Your task to perform on an android device: change the clock display to digital Image 0: 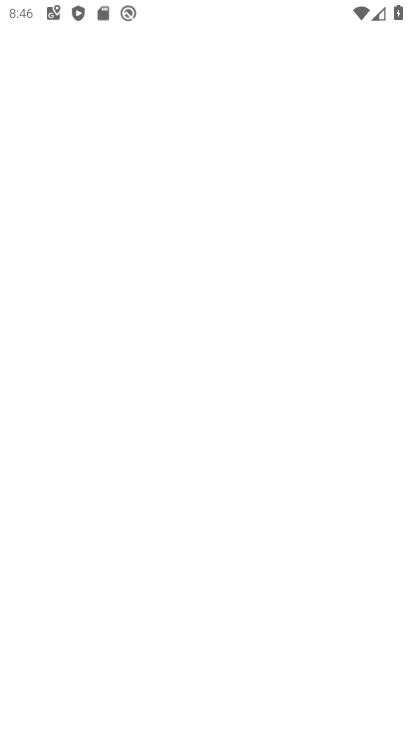
Step 0: press home button
Your task to perform on an android device: change the clock display to digital Image 1: 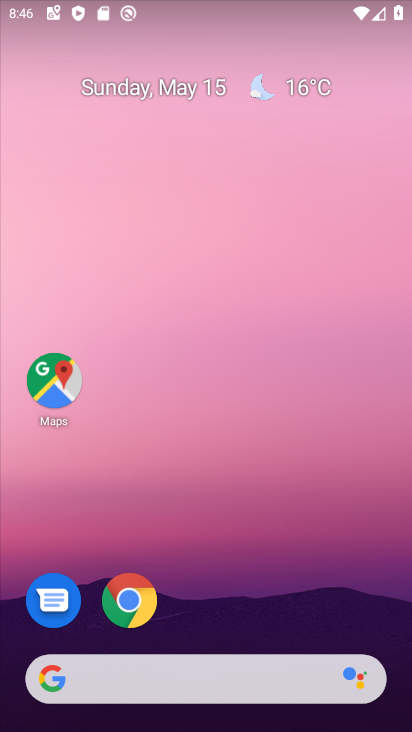
Step 1: drag from (209, 619) to (287, 28)
Your task to perform on an android device: change the clock display to digital Image 2: 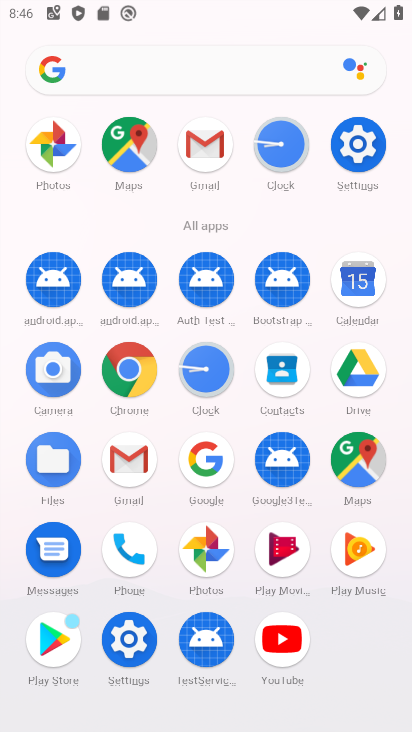
Step 2: click (216, 361)
Your task to perform on an android device: change the clock display to digital Image 3: 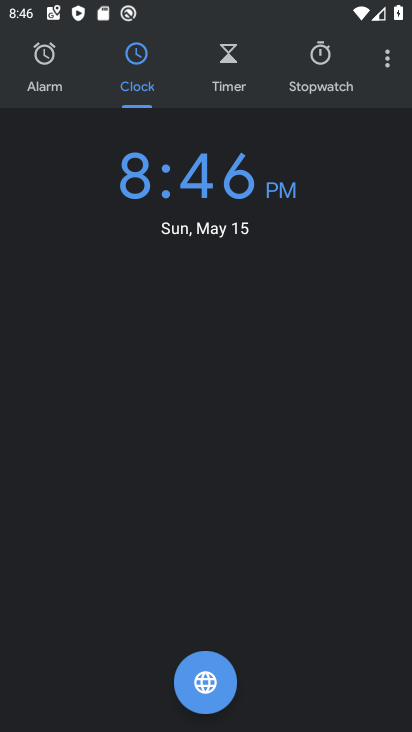
Step 3: click (380, 64)
Your task to perform on an android device: change the clock display to digital Image 4: 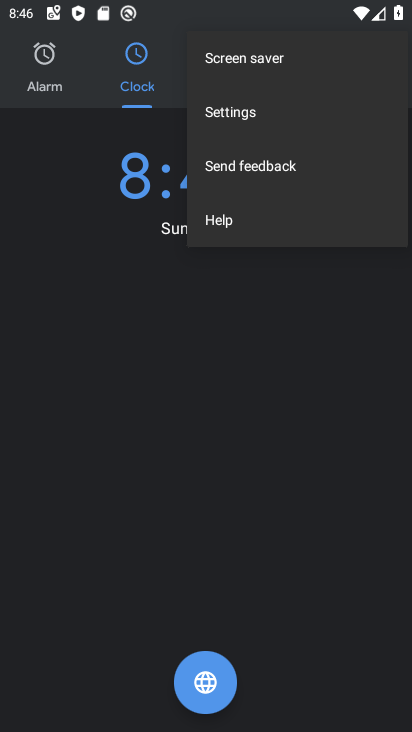
Step 4: click (284, 118)
Your task to perform on an android device: change the clock display to digital Image 5: 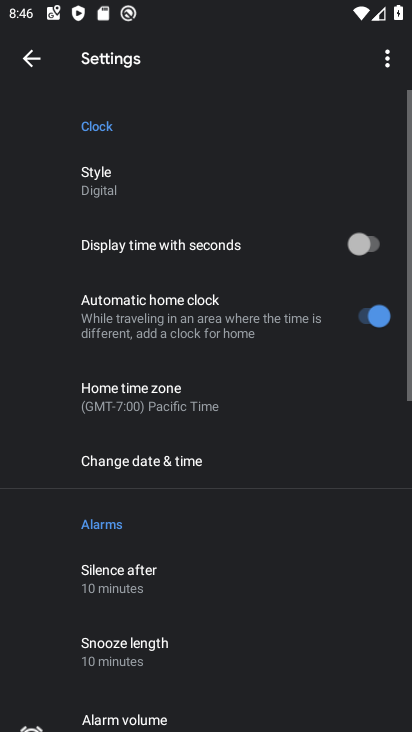
Step 5: click (110, 190)
Your task to perform on an android device: change the clock display to digital Image 6: 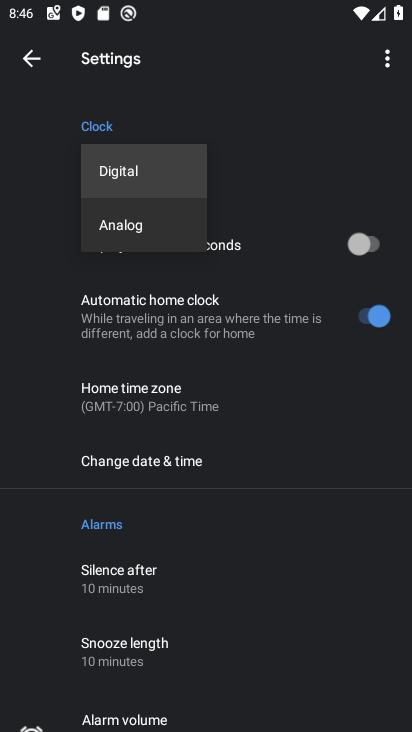
Step 6: click (129, 213)
Your task to perform on an android device: change the clock display to digital Image 7: 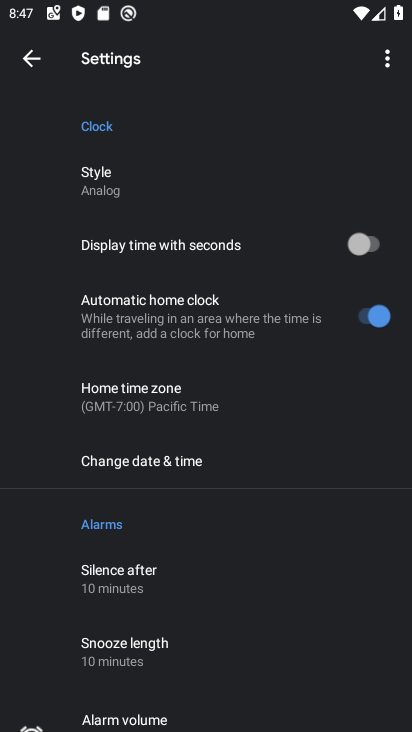
Step 7: task complete